Your task to perform on an android device: Do I have any events tomorrow? Image 0: 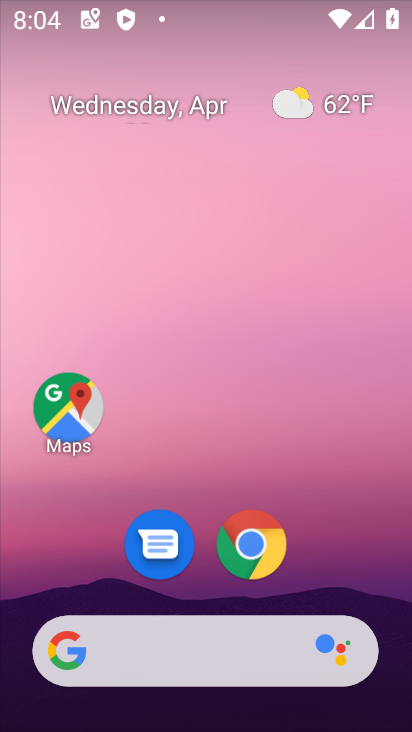
Step 0: drag from (339, 552) to (297, 162)
Your task to perform on an android device: Do I have any events tomorrow? Image 1: 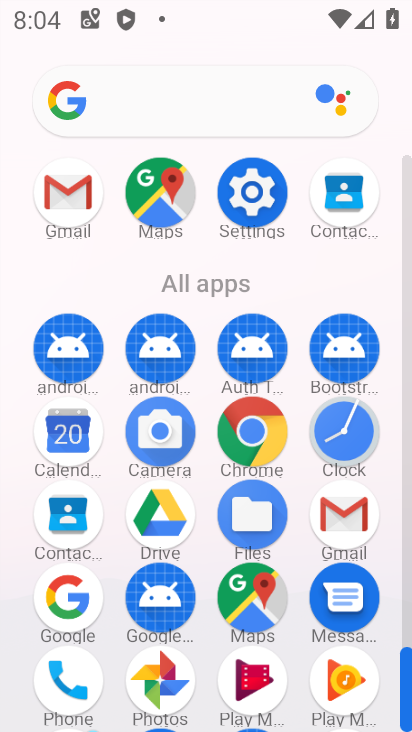
Step 1: click (66, 426)
Your task to perform on an android device: Do I have any events tomorrow? Image 2: 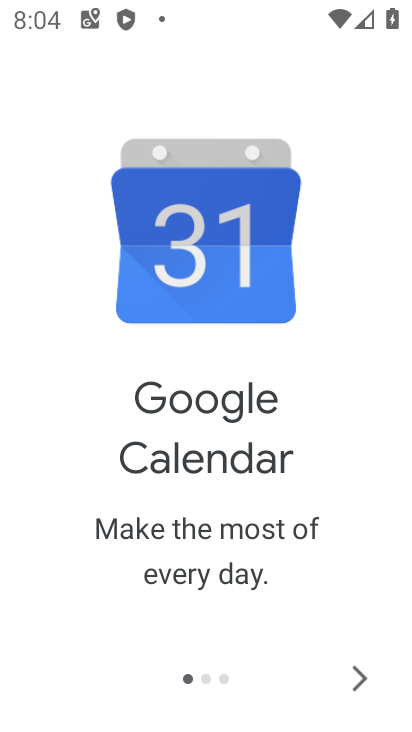
Step 2: click (353, 671)
Your task to perform on an android device: Do I have any events tomorrow? Image 3: 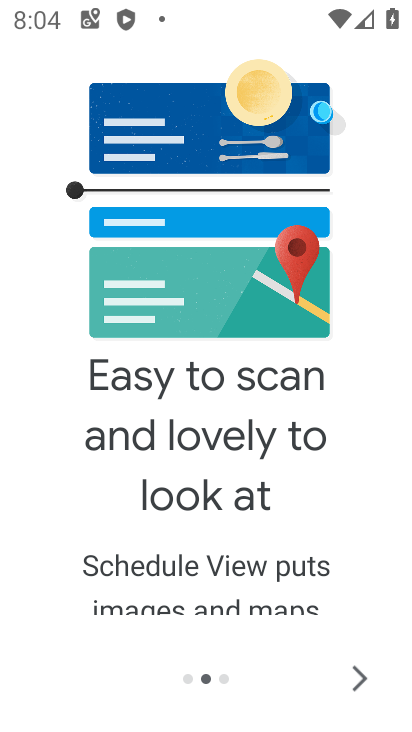
Step 3: click (354, 672)
Your task to perform on an android device: Do I have any events tomorrow? Image 4: 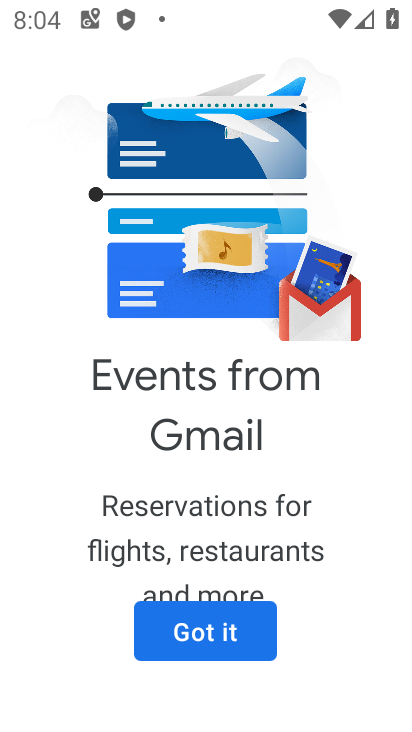
Step 4: click (213, 639)
Your task to perform on an android device: Do I have any events tomorrow? Image 5: 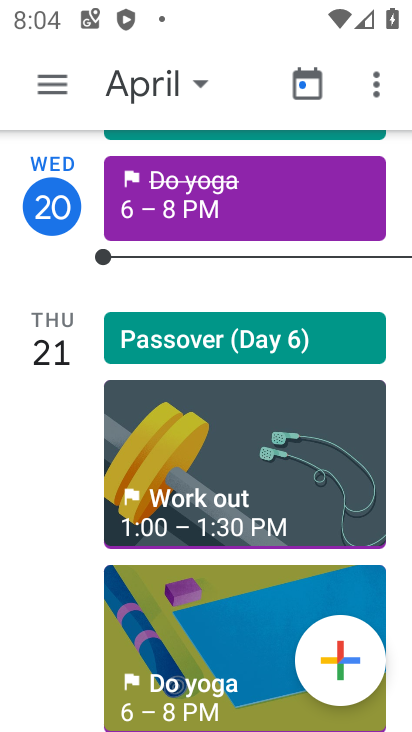
Step 5: task complete